Your task to perform on an android device: Open maps Image 0: 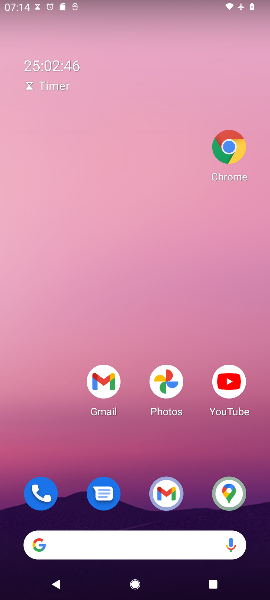
Step 0: press home button
Your task to perform on an android device: Open maps Image 1: 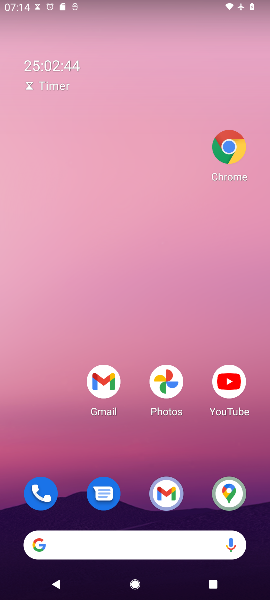
Step 1: drag from (38, 423) to (61, 81)
Your task to perform on an android device: Open maps Image 2: 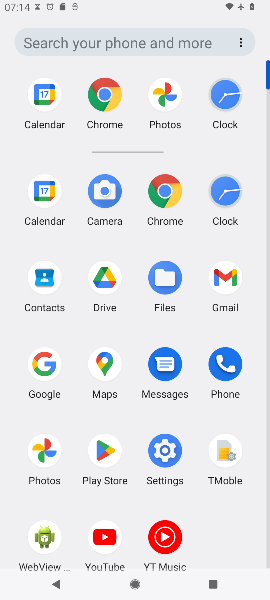
Step 2: click (108, 359)
Your task to perform on an android device: Open maps Image 3: 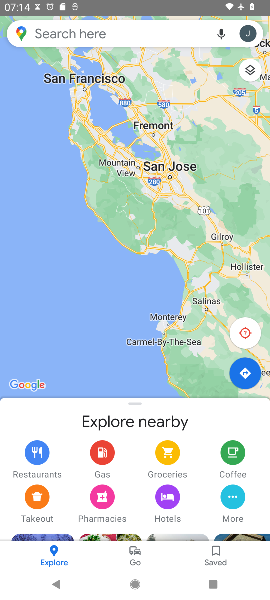
Step 3: task complete